Your task to perform on an android device: delete browsing data in the chrome app Image 0: 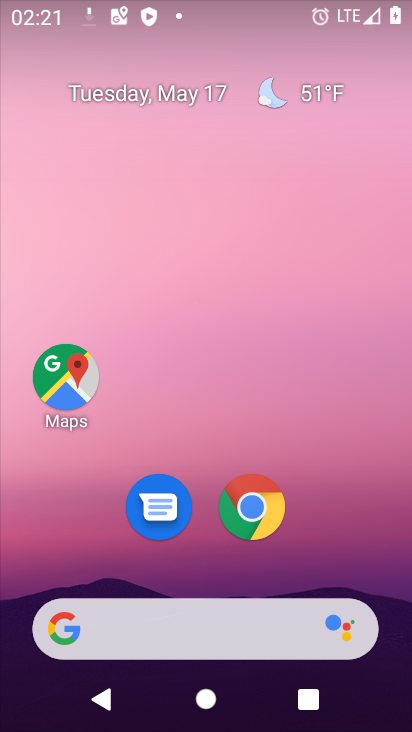
Step 0: click (239, 500)
Your task to perform on an android device: delete browsing data in the chrome app Image 1: 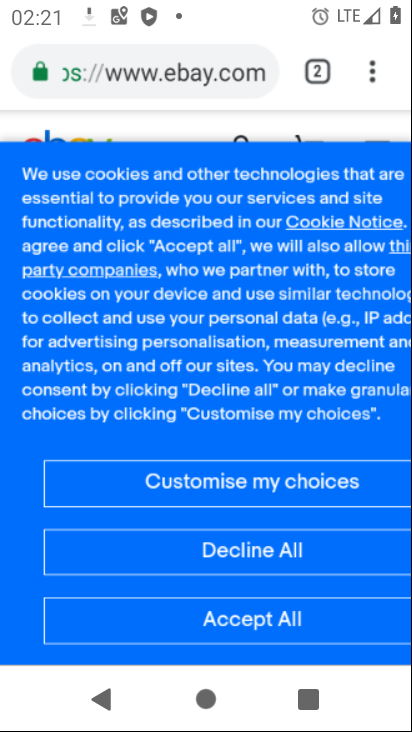
Step 1: click (368, 68)
Your task to perform on an android device: delete browsing data in the chrome app Image 2: 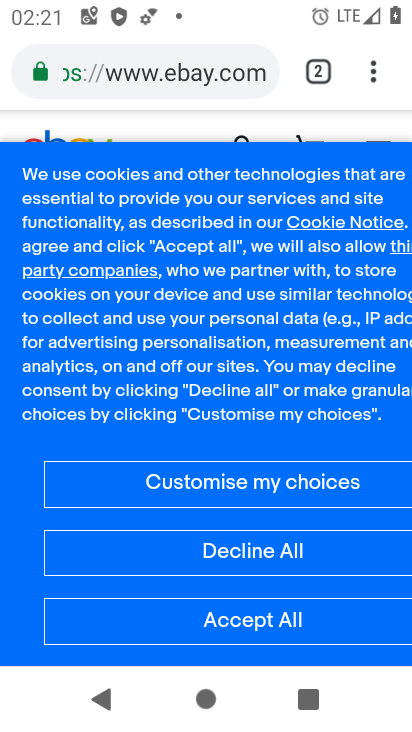
Step 2: click (368, 68)
Your task to perform on an android device: delete browsing data in the chrome app Image 3: 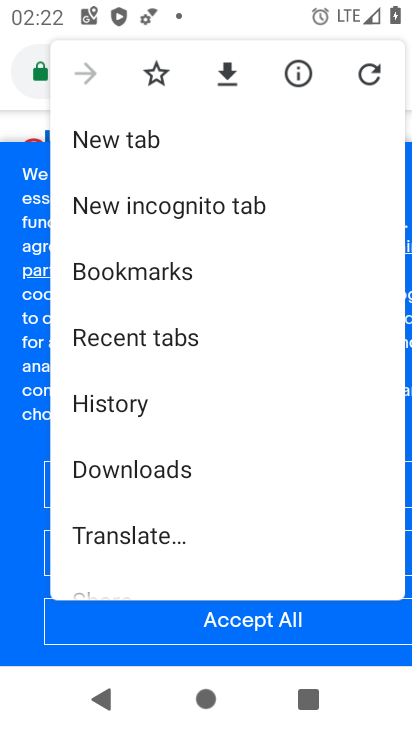
Step 3: drag from (184, 461) to (190, 289)
Your task to perform on an android device: delete browsing data in the chrome app Image 4: 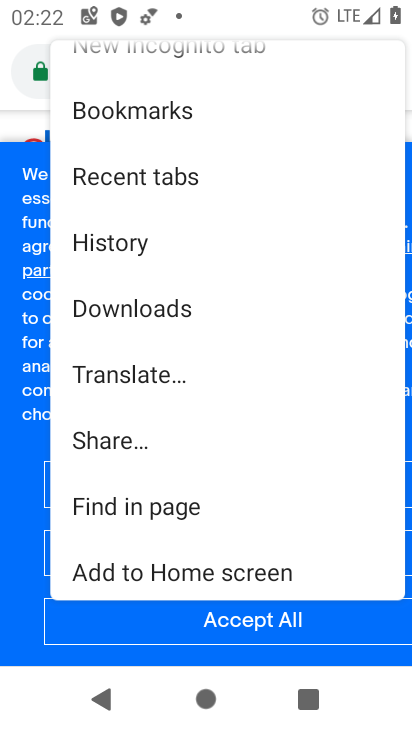
Step 4: click (120, 235)
Your task to perform on an android device: delete browsing data in the chrome app Image 5: 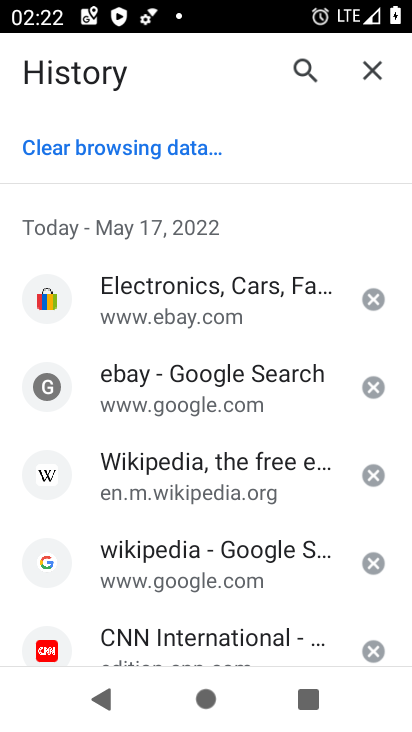
Step 5: click (90, 150)
Your task to perform on an android device: delete browsing data in the chrome app Image 6: 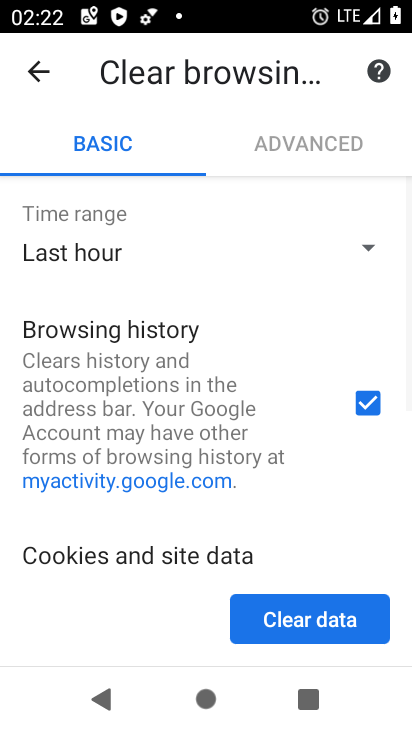
Step 6: click (312, 608)
Your task to perform on an android device: delete browsing data in the chrome app Image 7: 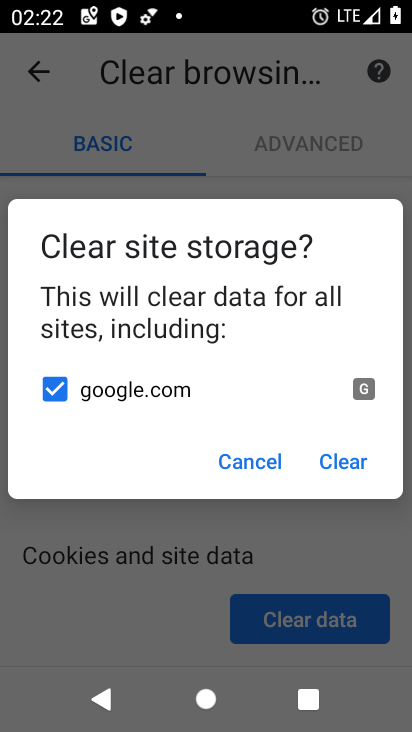
Step 7: click (322, 461)
Your task to perform on an android device: delete browsing data in the chrome app Image 8: 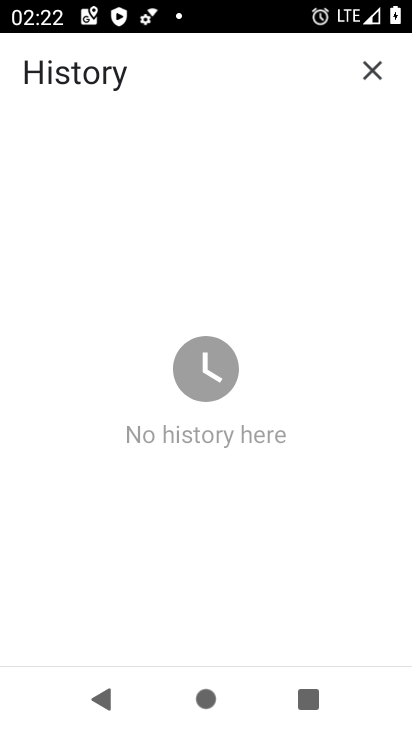
Step 8: task complete